Your task to perform on an android device: see sites visited before in the chrome app Image 0: 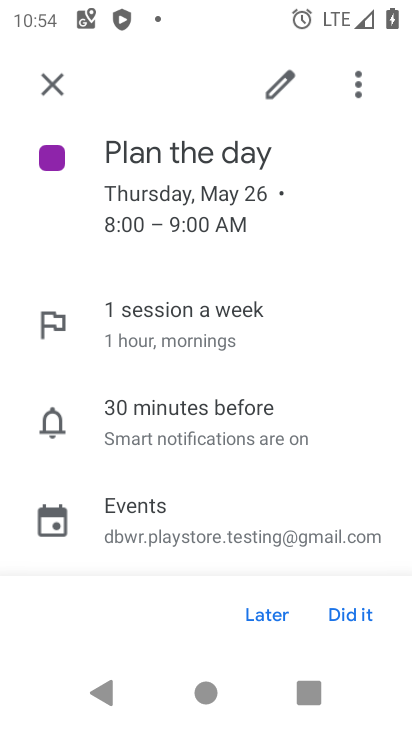
Step 0: press home button
Your task to perform on an android device: see sites visited before in the chrome app Image 1: 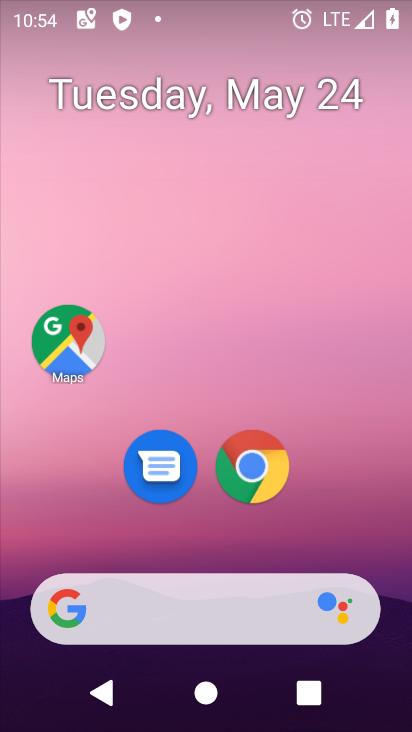
Step 1: drag from (389, 554) to (382, 168)
Your task to perform on an android device: see sites visited before in the chrome app Image 2: 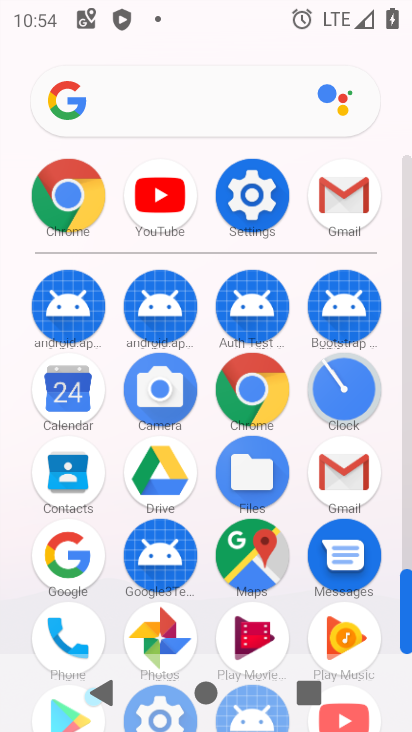
Step 2: click (264, 408)
Your task to perform on an android device: see sites visited before in the chrome app Image 3: 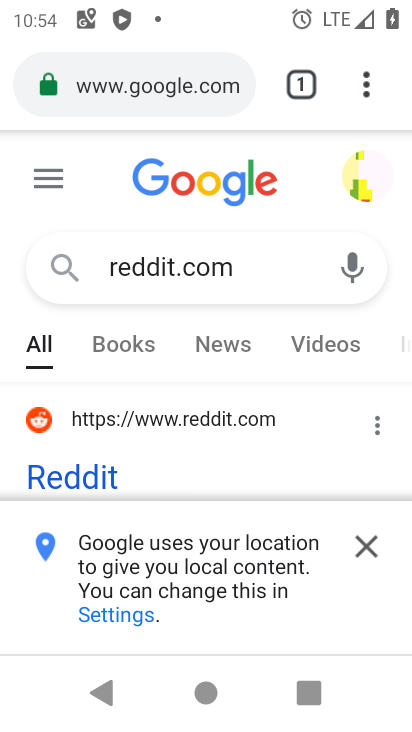
Step 3: click (363, 95)
Your task to perform on an android device: see sites visited before in the chrome app Image 4: 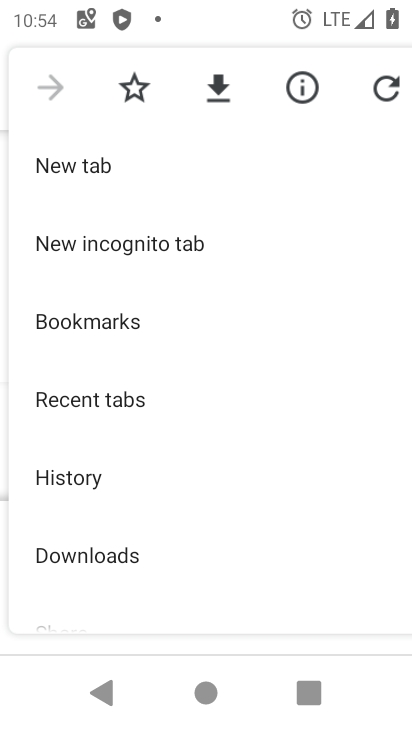
Step 4: drag from (261, 518) to (292, 398)
Your task to perform on an android device: see sites visited before in the chrome app Image 5: 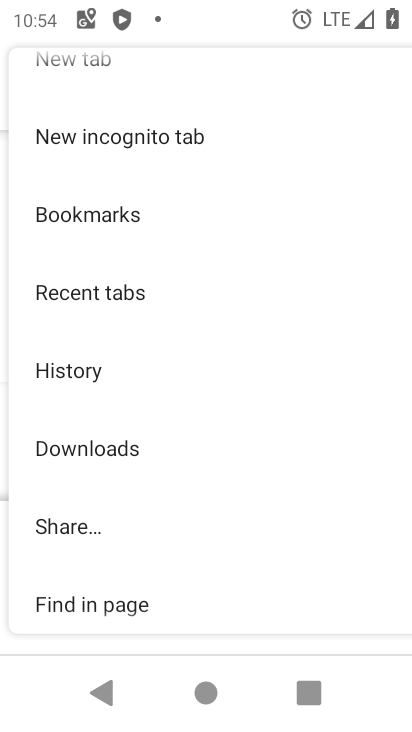
Step 5: drag from (312, 565) to (344, 430)
Your task to perform on an android device: see sites visited before in the chrome app Image 6: 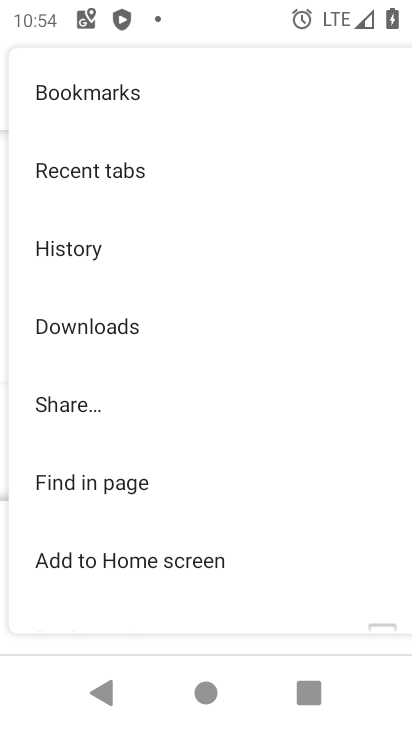
Step 6: drag from (294, 258) to (274, 341)
Your task to perform on an android device: see sites visited before in the chrome app Image 7: 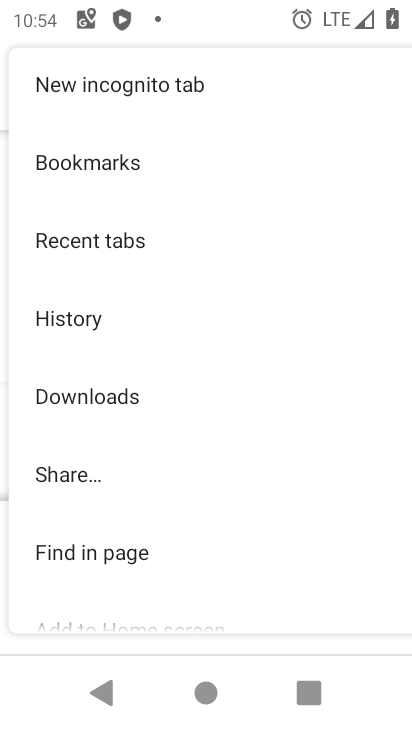
Step 7: click (184, 331)
Your task to perform on an android device: see sites visited before in the chrome app Image 8: 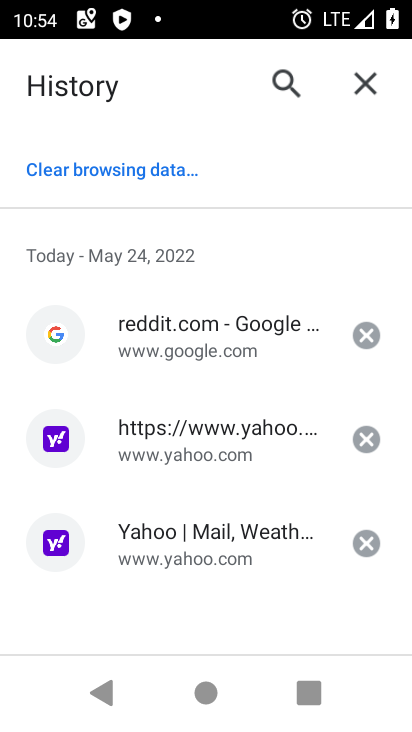
Step 8: task complete